Your task to perform on an android device: open app "Pandora - Music & Podcasts" (install if not already installed) Image 0: 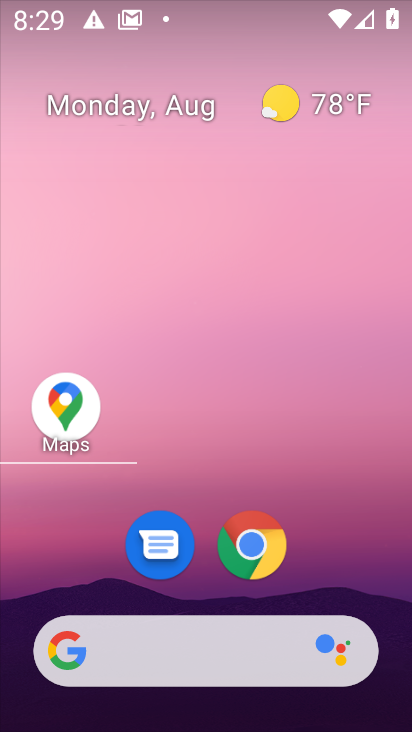
Step 0: press home button
Your task to perform on an android device: open app "Pandora - Music & Podcasts" (install if not already installed) Image 1: 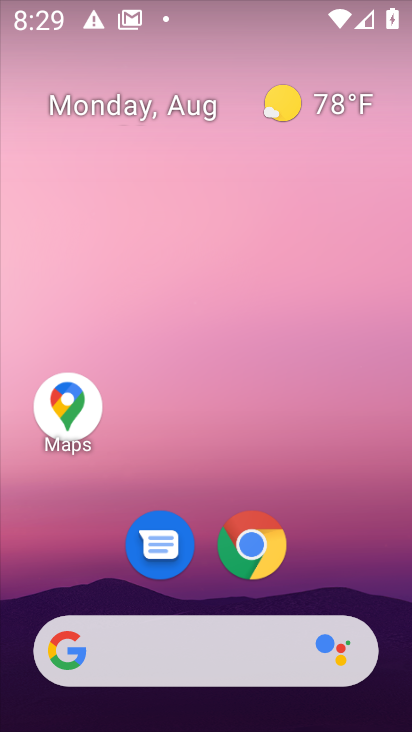
Step 1: drag from (373, 592) to (398, 82)
Your task to perform on an android device: open app "Pandora - Music & Podcasts" (install if not already installed) Image 2: 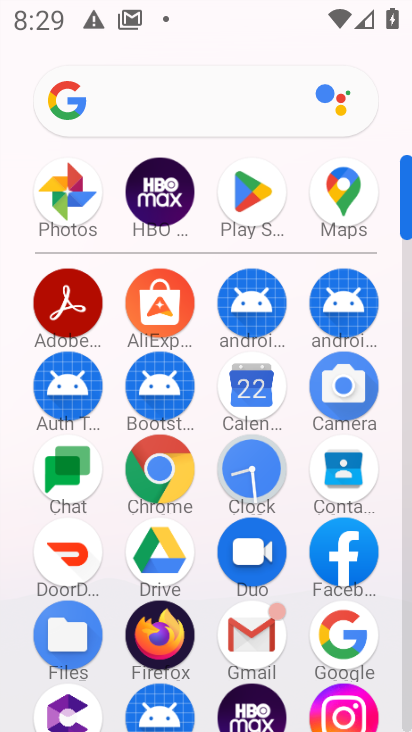
Step 2: click (254, 193)
Your task to perform on an android device: open app "Pandora - Music & Podcasts" (install if not already installed) Image 3: 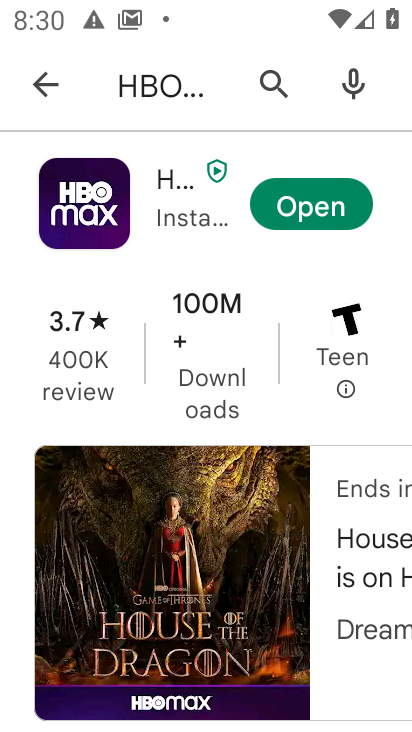
Step 3: press back button
Your task to perform on an android device: open app "Pandora - Music & Podcasts" (install if not already installed) Image 4: 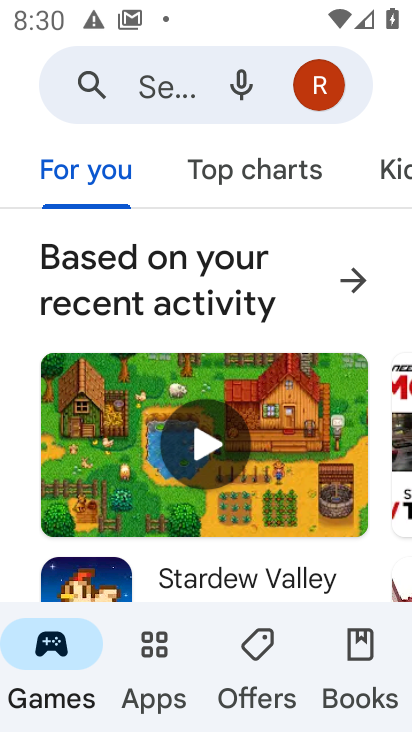
Step 4: click (169, 87)
Your task to perform on an android device: open app "Pandora - Music & Podcasts" (install if not already installed) Image 5: 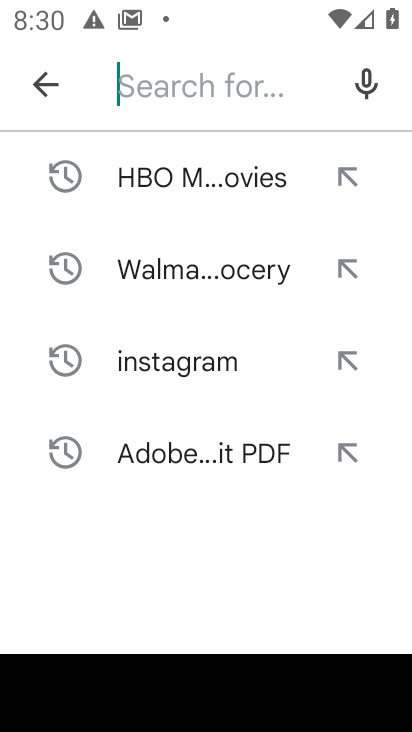
Step 5: type "Pandora - Music & Podcasts"
Your task to perform on an android device: open app "Pandora - Music & Podcasts" (install if not already installed) Image 6: 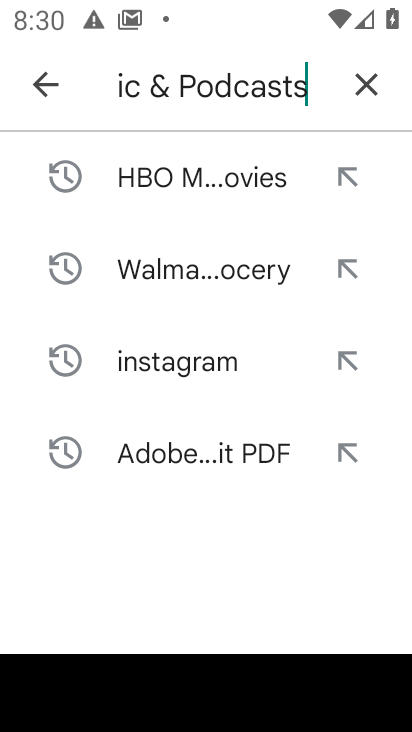
Step 6: press enter
Your task to perform on an android device: open app "Pandora - Music & Podcasts" (install if not already installed) Image 7: 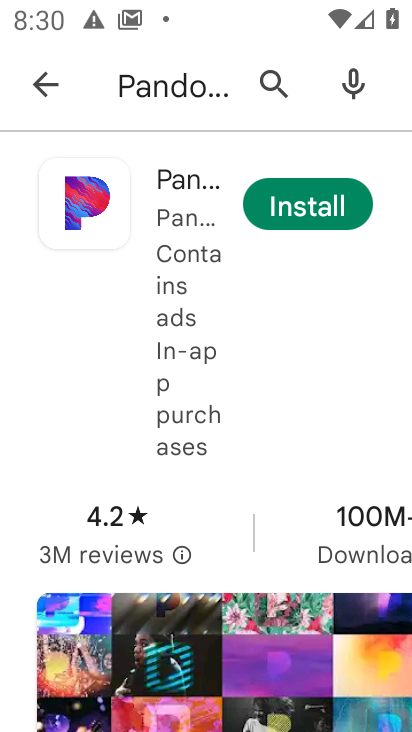
Step 7: click (314, 203)
Your task to perform on an android device: open app "Pandora - Music & Podcasts" (install if not already installed) Image 8: 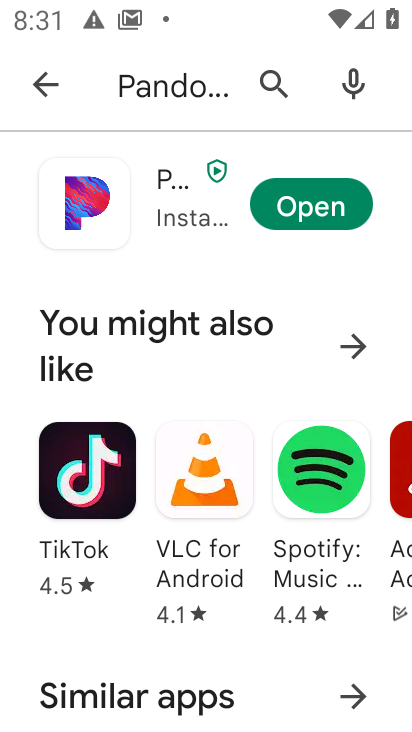
Step 8: click (324, 199)
Your task to perform on an android device: open app "Pandora - Music & Podcasts" (install if not already installed) Image 9: 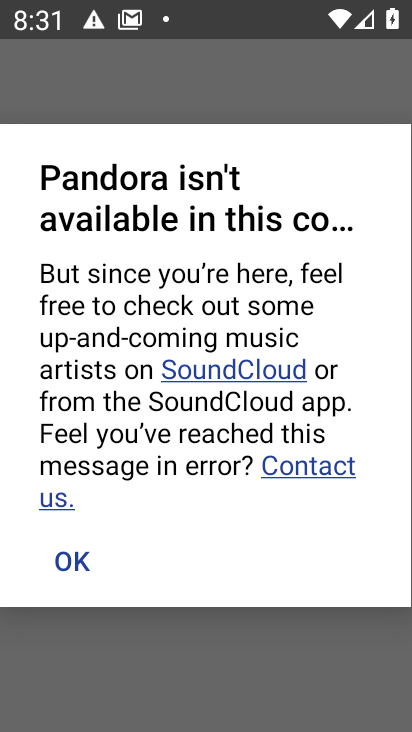
Step 9: task complete